Your task to perform on an android device: Open Yahoo.com Image 0: 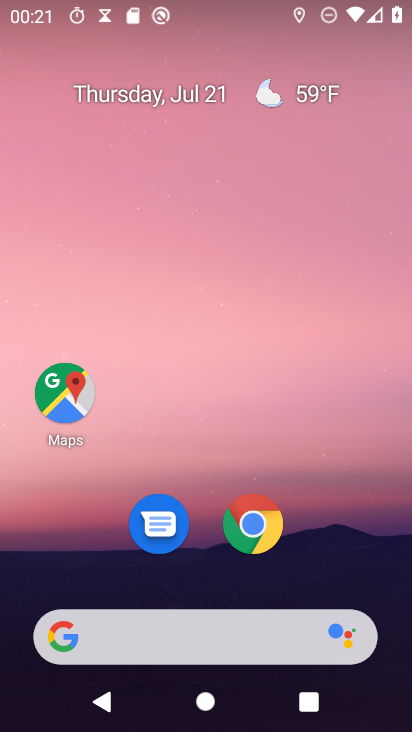
Step 0: press home button
Your task to perform on an android device: Open Yahoo.com Image 1: 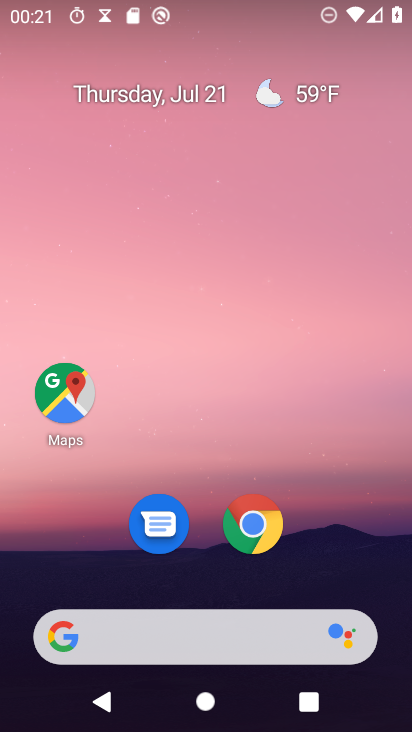
Step 1: click (252, 531)
Your task to perform on an android device: Open Yahoo.com Image 2: 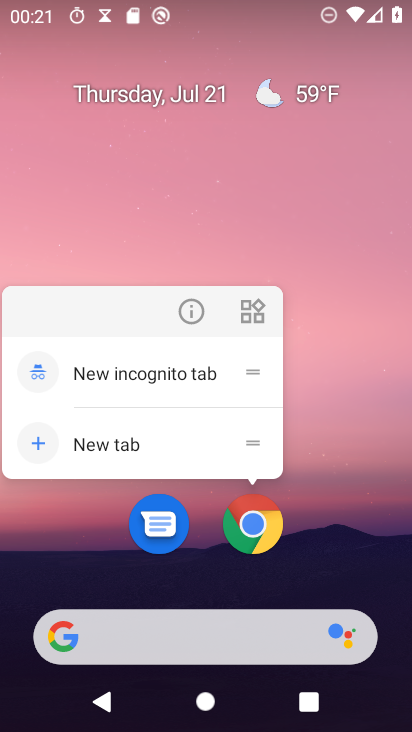
Step 2: click (252, 528)
Your task to perform on an android device: Open Yahoo.com Image 3: 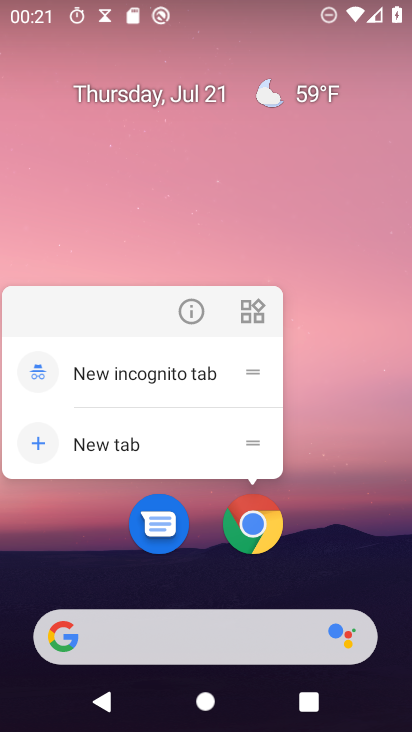
Step 3: click (255, 520)
Your task to perform on an android device: Open Yahoo.com Image 4: 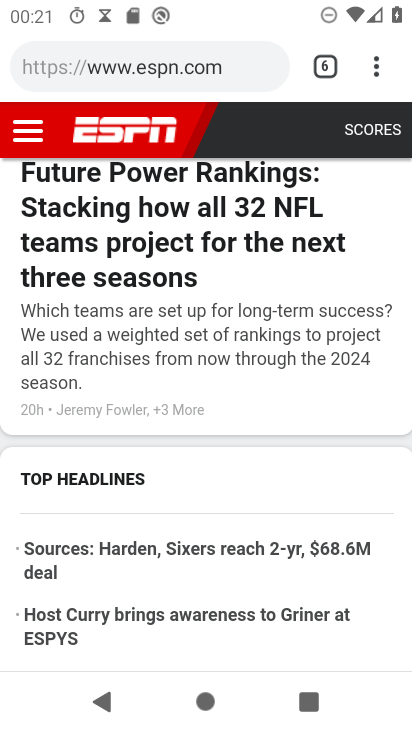
Step 4: drag from (379, 71) to (164, 140)
Your task to perform on an android device: Open Yahoo.com Image 5: 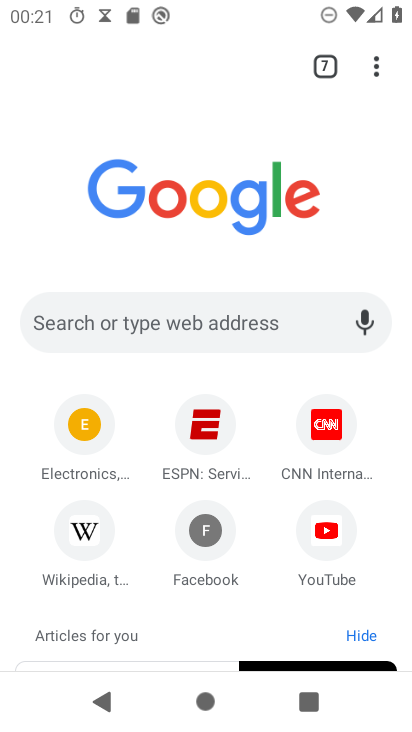
Step 5: click (80, 315)
Your task to perform on an android device: Open Yahoo.com Image 6: 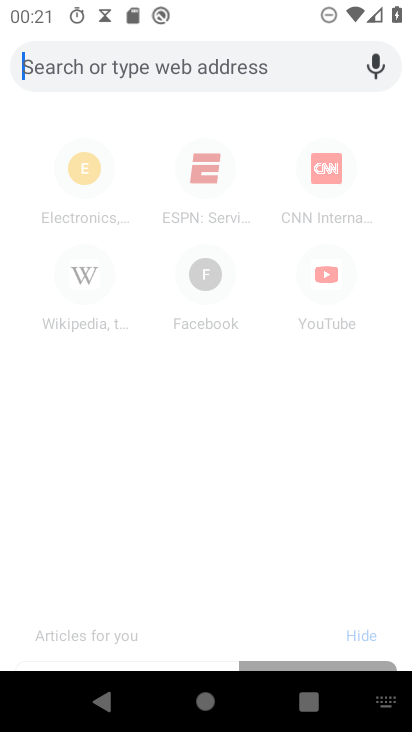
Step 6: type "yahoo.com"
Your task to perform on an android device: Open Yahoo.com Image 7: 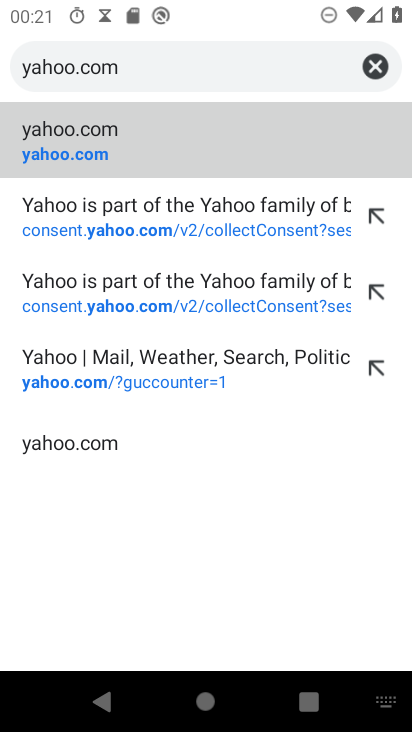
Step 7: click (98, 135)
Your task to perform on an android device: Open Yahoo.com Image 8: 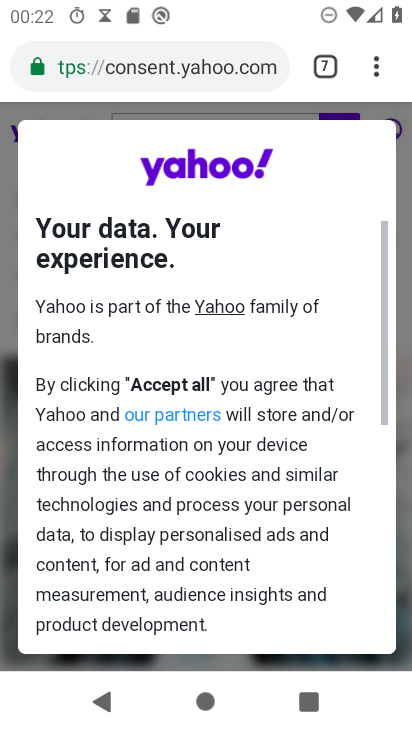
Step 8: drag from (208, 594) to (363, 163)
Your task to perform on an android device: Open Yahoo.com Image 9: 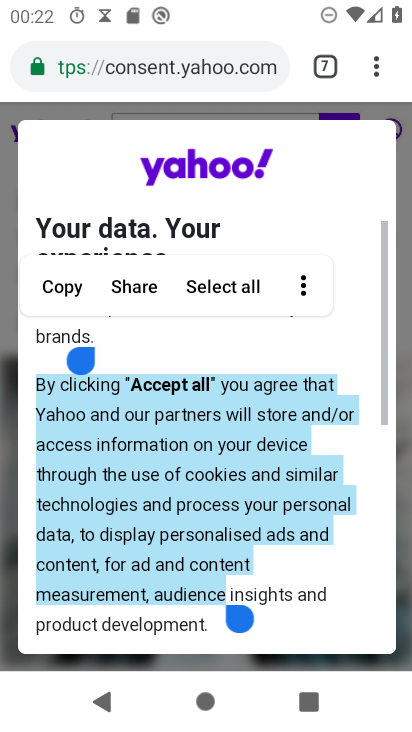
Step 9: click (366, 593)
Your task to perform on an android device: Open Yahoo.com Image 10: 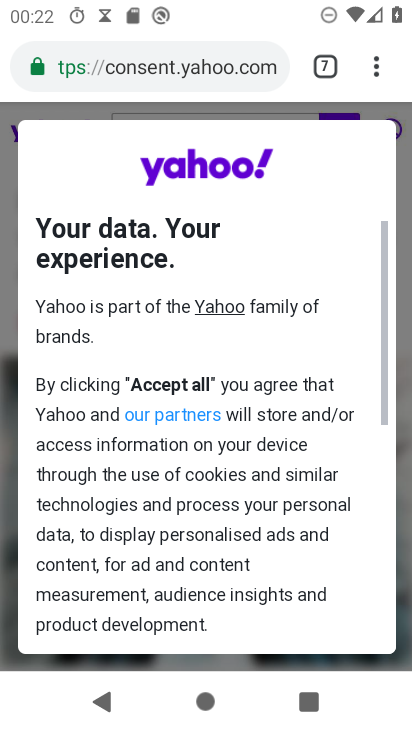
Step 10: drag from (247, 541) to (346, 147)
Your task to perform on an android device: Open Yahoo.com Image 11: 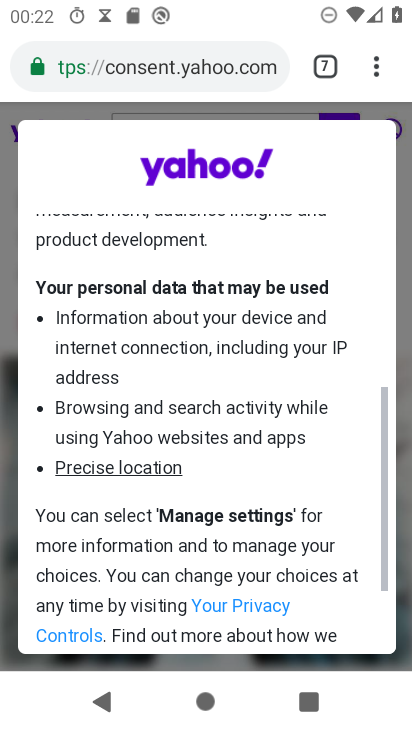
Step 11: drag from (166, 565) to (336, 109)
Your task to perform on an android device: Open Yahoo.com Image 12: 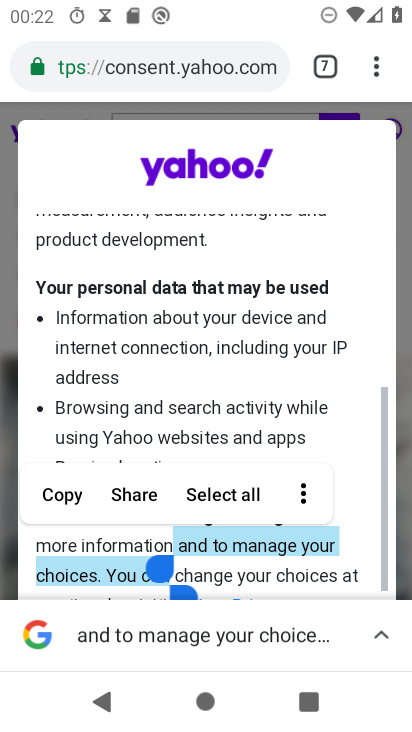
Step 12: click (357, 408)
Your task to perform on an android device: Open Yahoo.com Image 13: 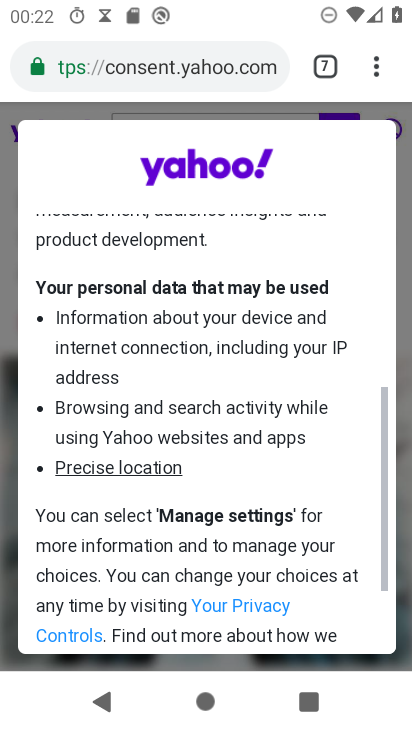
Step 13: drag from (126, 570) to (352, 134)
Your task to perform on an android device: Open Yahoo.com Image 14: 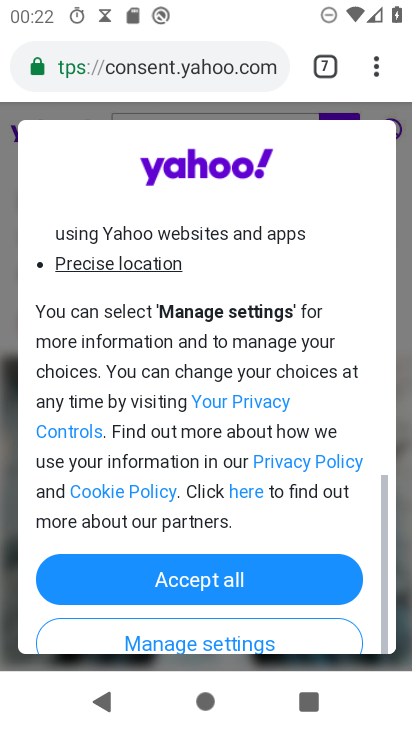
Step 14: click (219, 591)
Your task to perform on an android device: Open Yahoo.com Image 15: 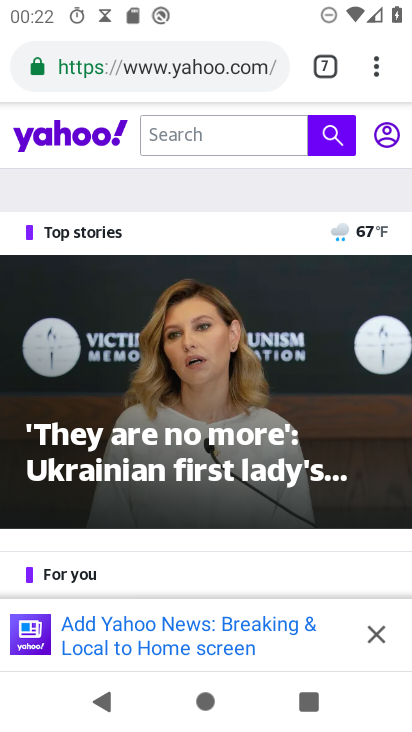
Step 15: task complete